Your task to perform on an android device: Search for sushi restaurants on Maps Image 0: 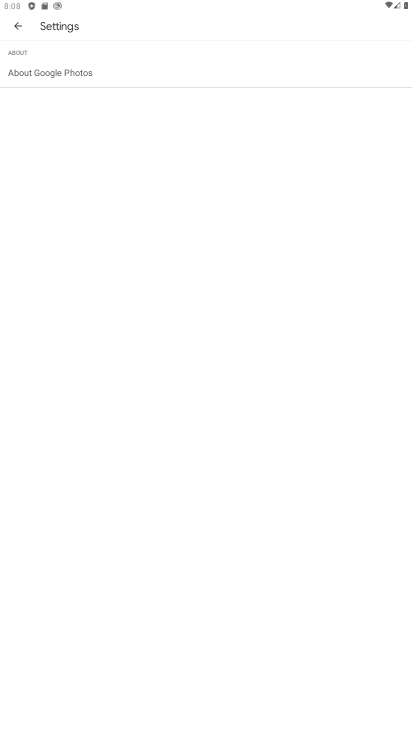
Step 0: press home button
Your task to perform on an android device: Search for sushi restaurants on Maps Image 1: 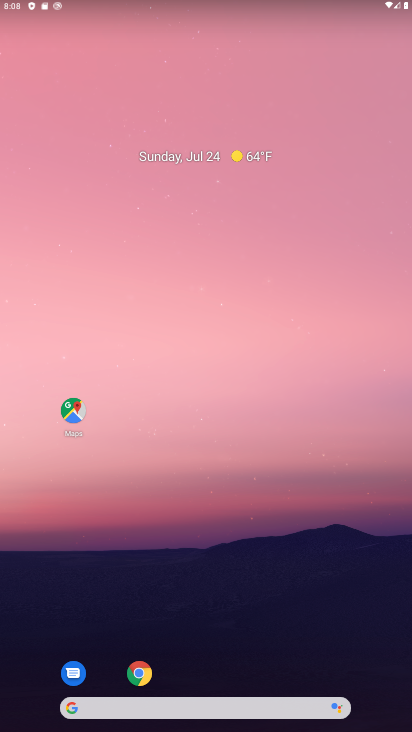
Step 1: click (77, 409)
Your task to perform on an android device: Search for sushi restaurants on Maps Image 2: 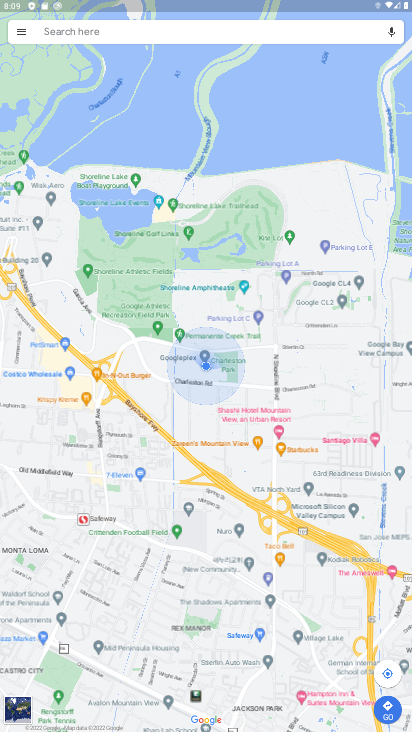
Step 2: click (216, 33)
Your task to perform on an android device: Search for sushi restaurants on Maps Image 3: 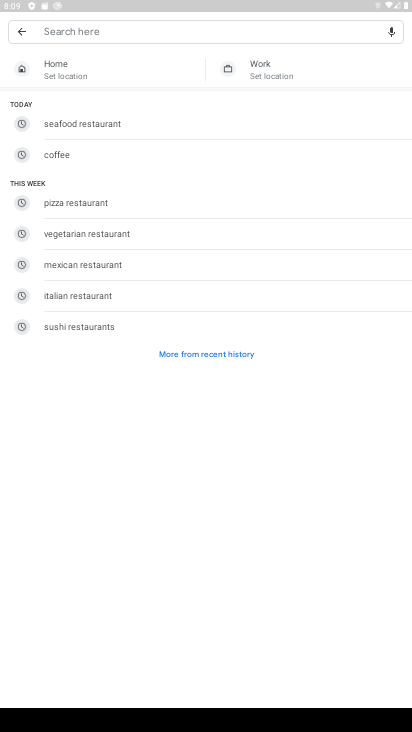
Step 3: click (93, 324)
Your task to perform on an android device: Search for sushi restaurants on Maps Image 4: 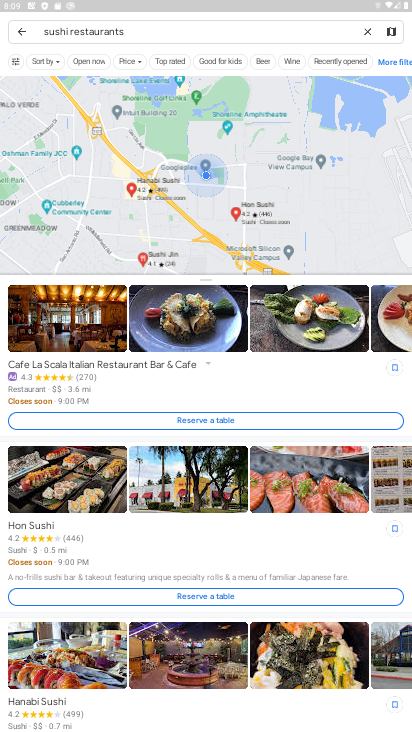
Step 4: task complete